Your task to perform on an android device: Is it going to rain this weekend? Image 0: 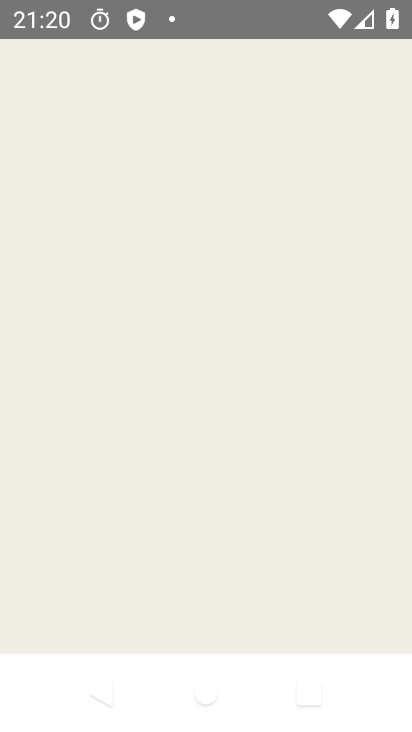
Step 0: click (387, 453)
Your task to perform on an android device: Is it going to rain this weekend? Image 1: 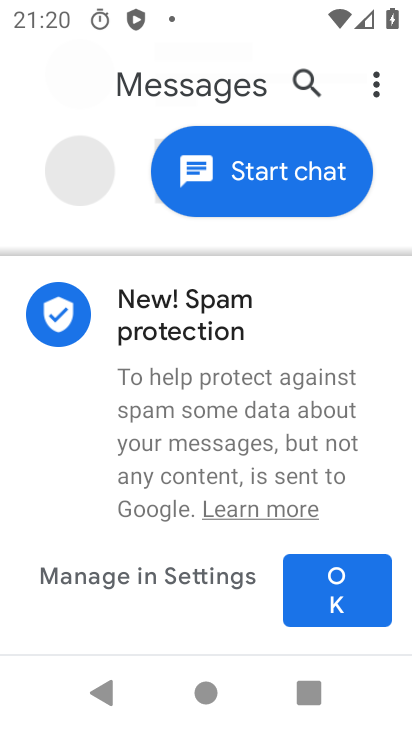
Step 1: press home button
Your task to perform on an android device: Is it going to rain this weekend? Image 2: 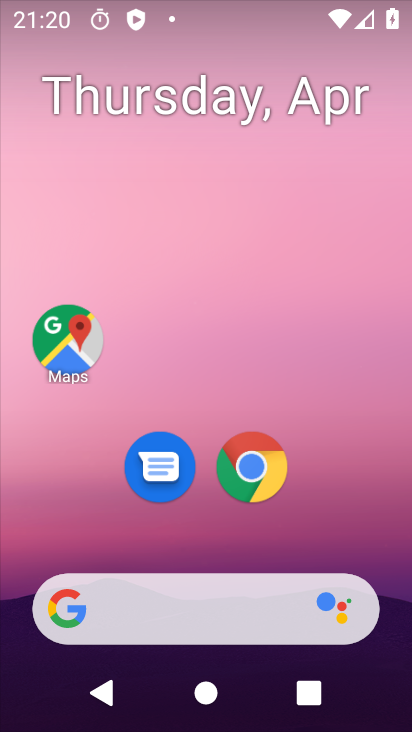
Step 2: click (197, 589)
Your task to perform on an android device: Is it going to rain this weekend? Image 3: 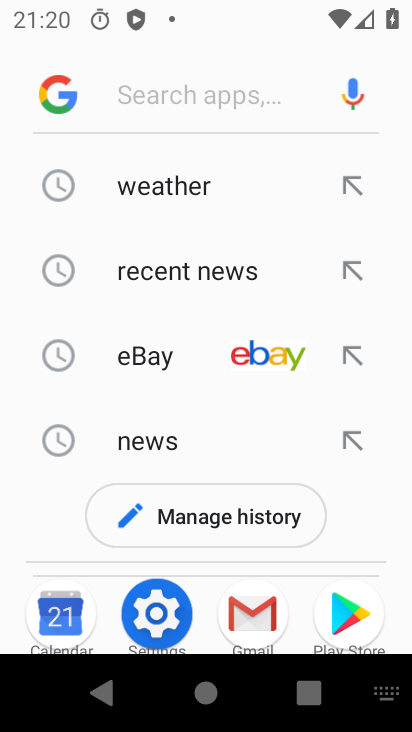
Step 3: click (158, 189)
Your task to perform on an android device: Is it going to rain this weekend? Image 4: 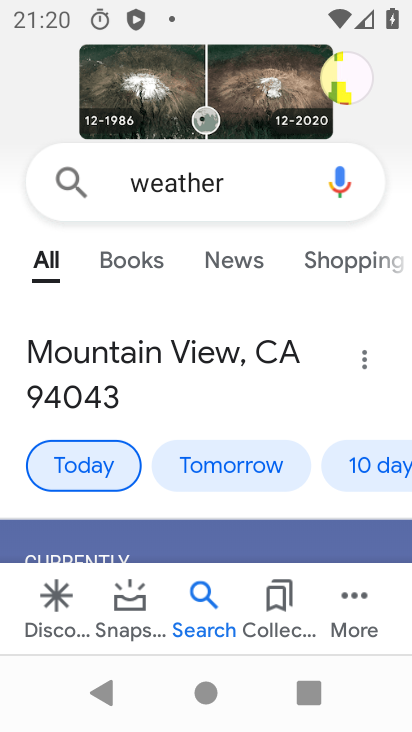
Step 4: click (381, 458)
Your task to perform on an android device: Is it going to rain this weekend? Image 5: 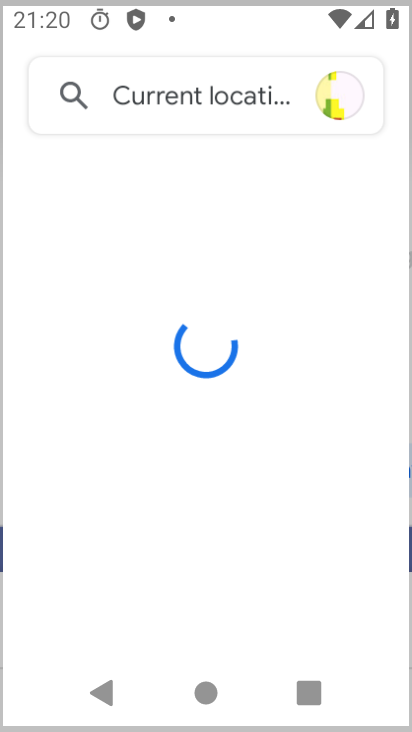
Step 5: click (378, 463)
Your task to perform on an android device: Is it going to rain this weekend? Image 6: 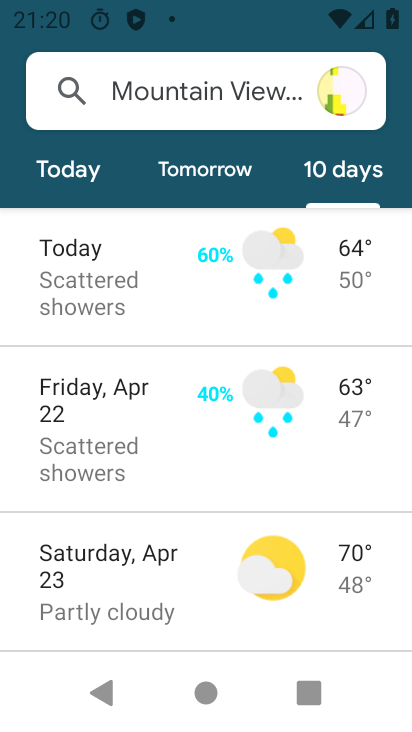
Step 6: task complete